Your task to perform on an android device: toggle show notifications on the lock screen Image 0: 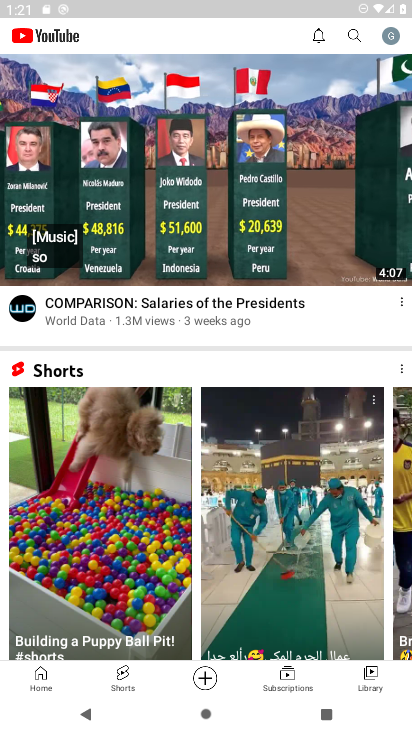
Step 0: click (325, 145)
Your task to perform on an android device: toggle show notifications on the lock screen Image 1: 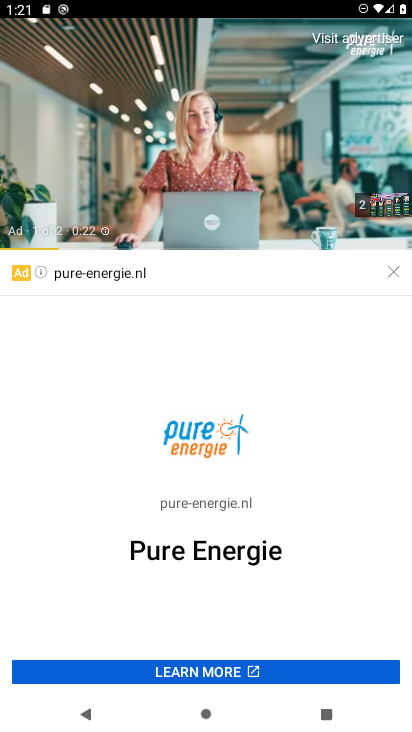
Step 1: press home button
Your task to perform on an android device: toggle show notifications on the lock screen Image 2: 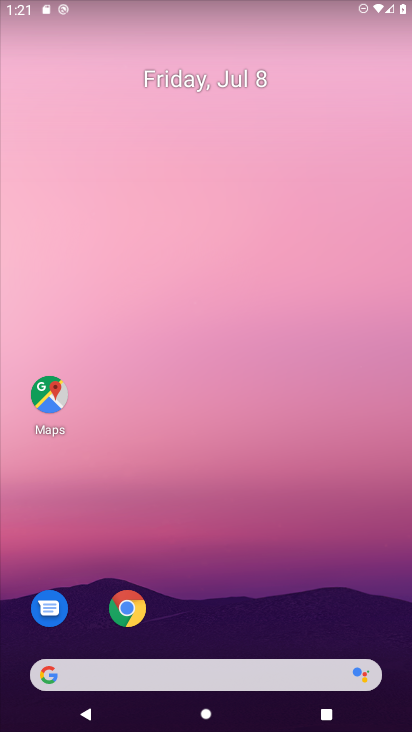
Step 2: drag from (242, 608) to (273, 330)
Your task to perform on an android device: toggle show notifications on the lock screen Image 3: 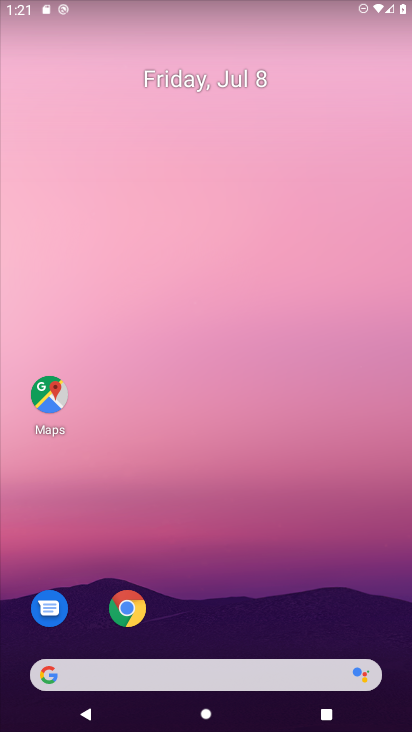
Step 3: drag from (237, 622) to (274, 236)
Your task to perform on an android device: toggle show notifications on the lock screen Image 4: 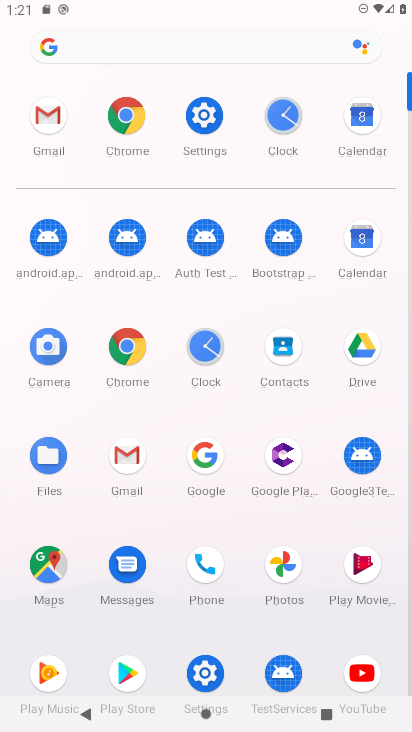
Step 4: click (204, 136)
Your task to perform on an android device: toggle show notifications on the lock screen Image 5: 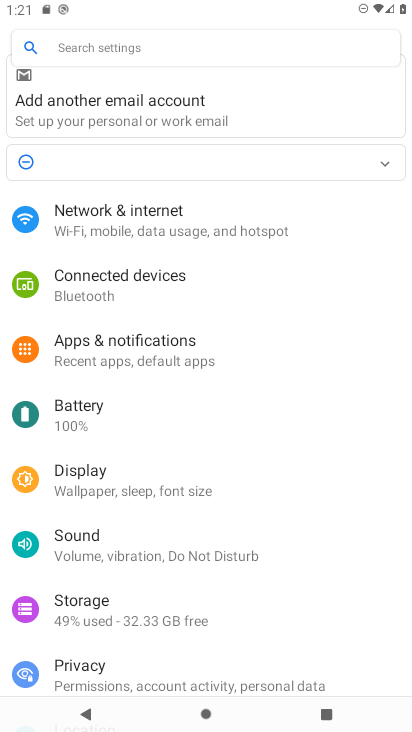
Step 5: click (193, 335)
Your task to perform on an android device: toggle show notifications on the lock screen Image 6: 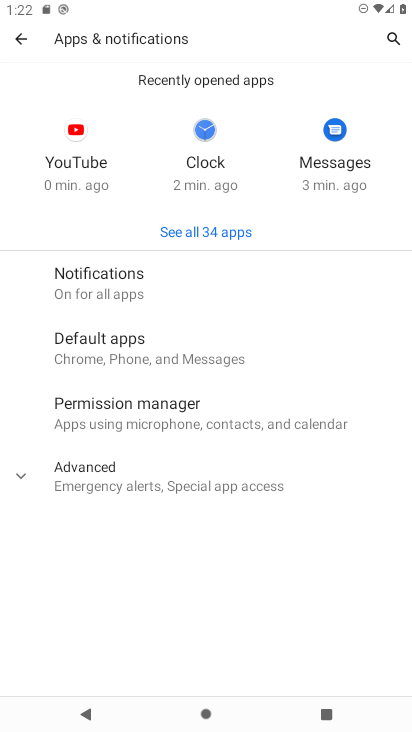
Step 6: click (172, 279)
Your task to perform on an android device: toggle show notifications on the lock screen Image 7: 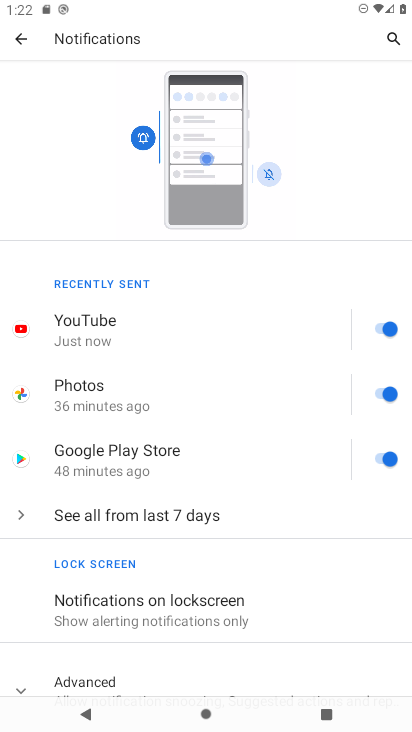
Step 7: click (203, 626)
Your task to perform on an android device: toggle show notifications on the lock screen Image 8: 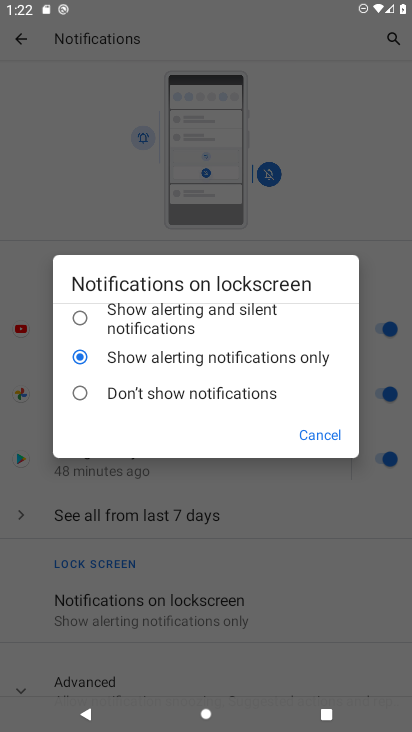
Step 8: click (232, 367)
Your task to perform on an android device: toggle show notifications on the lock screen Image 9: 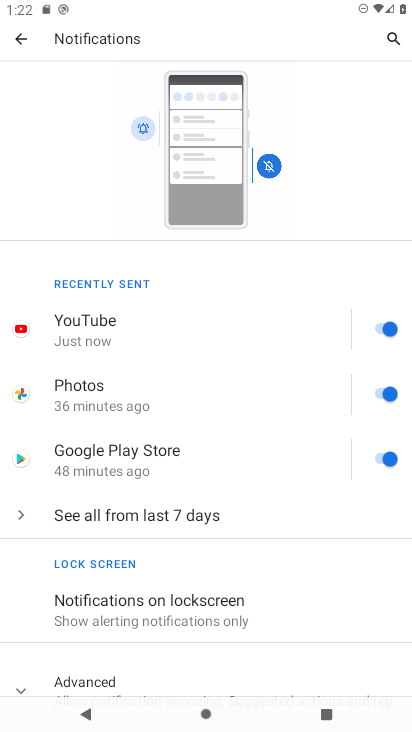
Step 9: task complete